Your task to perform on an android device: turn on sleep mode Image 0: 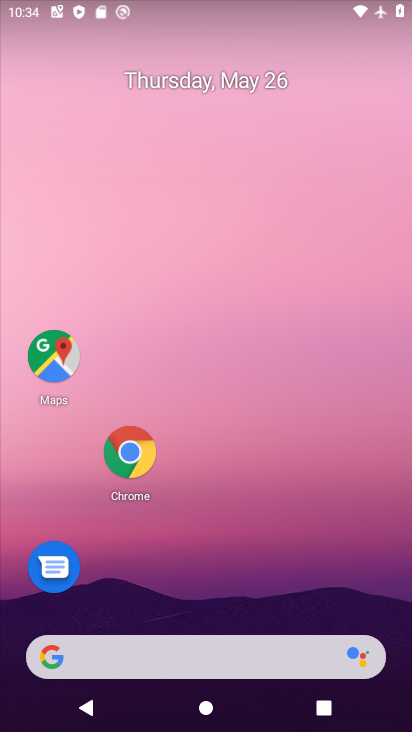
Step 0: press home button
Your task to perform on an android device: turn on sleep mode Image 1: 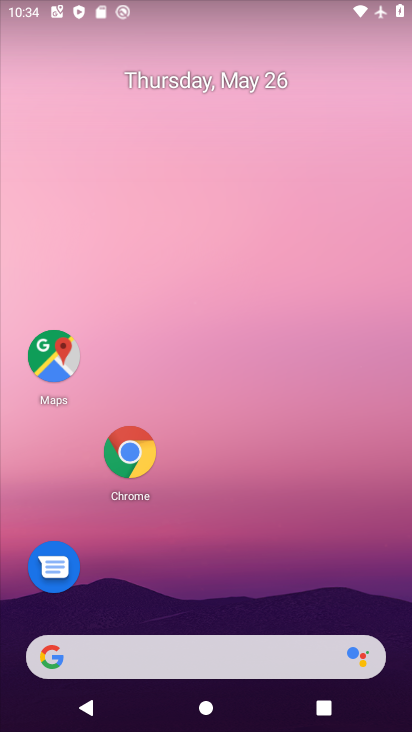
Step 1: drag from (193, 650) to (303, 101)
Your task to perform on an android device: turn on sleep mode Image 2: 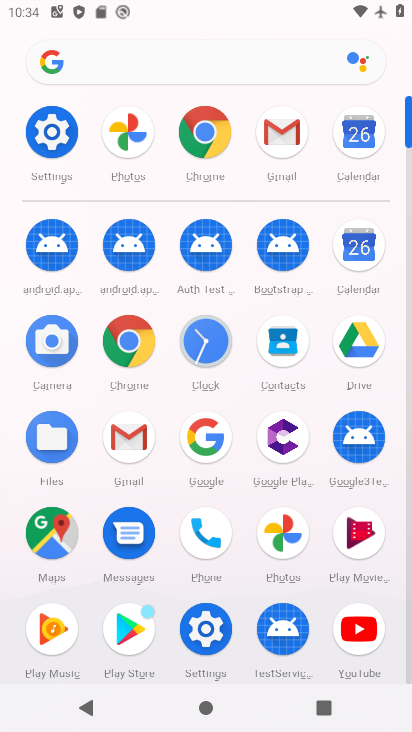
Step 2: click (52, 136)
Your task to perform on an android device: turn on sleep mode Image 3: 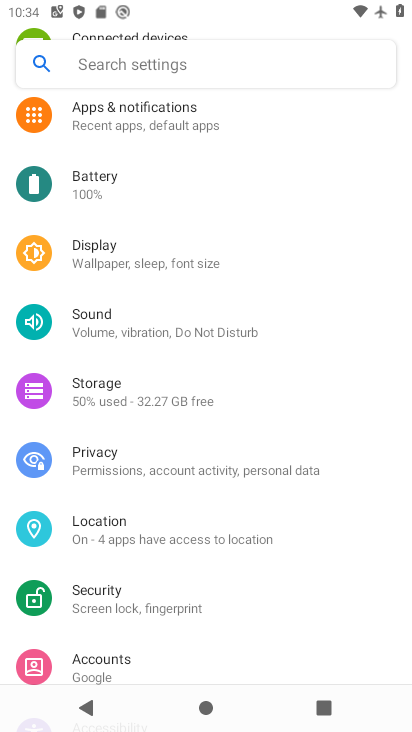
Step 3: click (148, 257)
Your task to perform on an android device: turn on sleep mode Image 4: 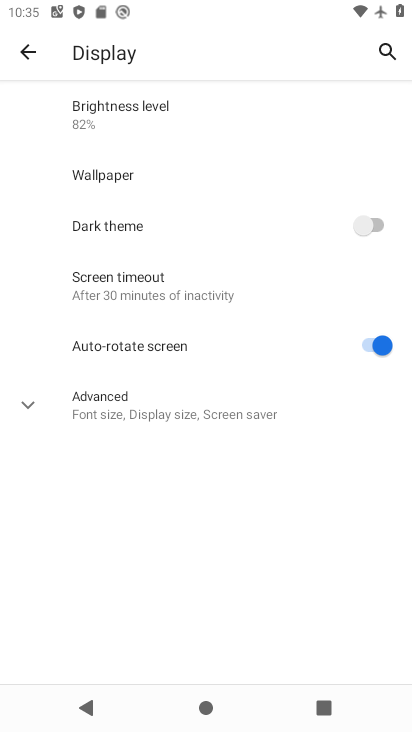
Step 4: task complete